Your task to perform on an android device: find snoozed emails in the gmail app Image 0: 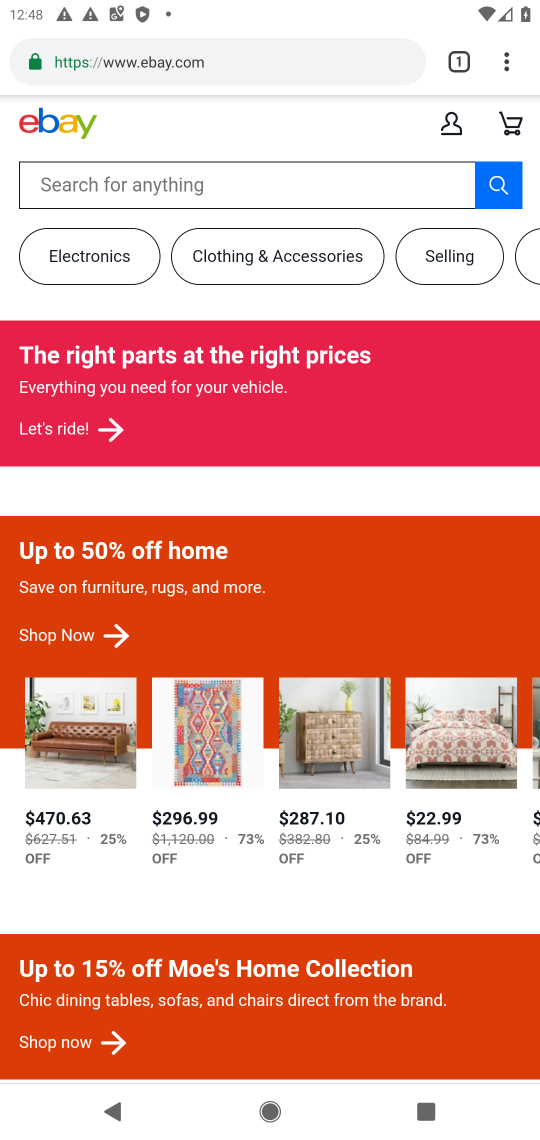
Step 0: press home button
Your task to perform on an android device: find snoozed emails in the gmail app Image 1: 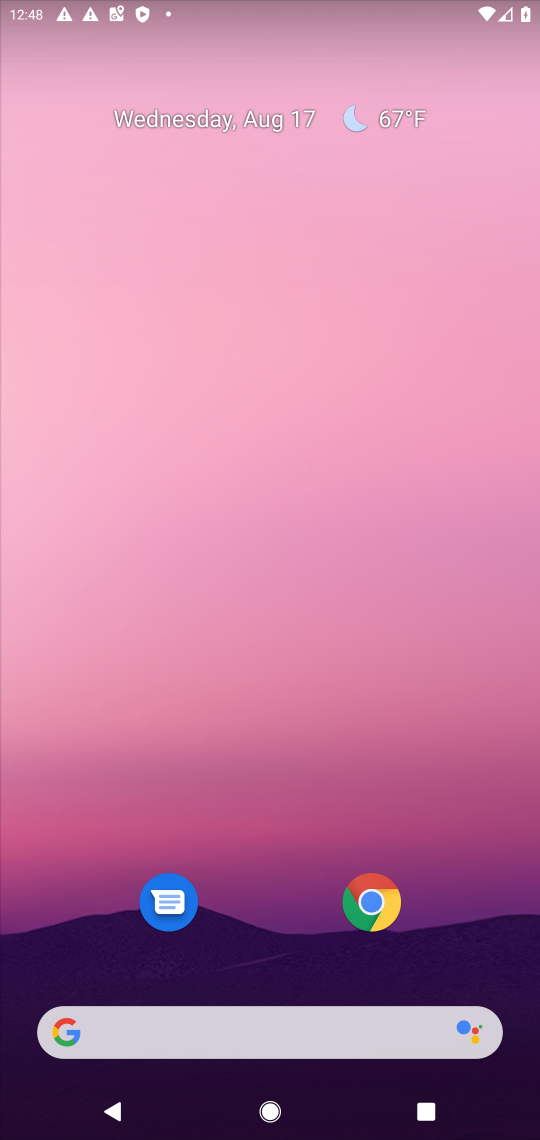
Step 1: drag from (278, 926) to (146, 3)
Your task to perform on an android device: find snoozed emails in the gmail app Image 2: 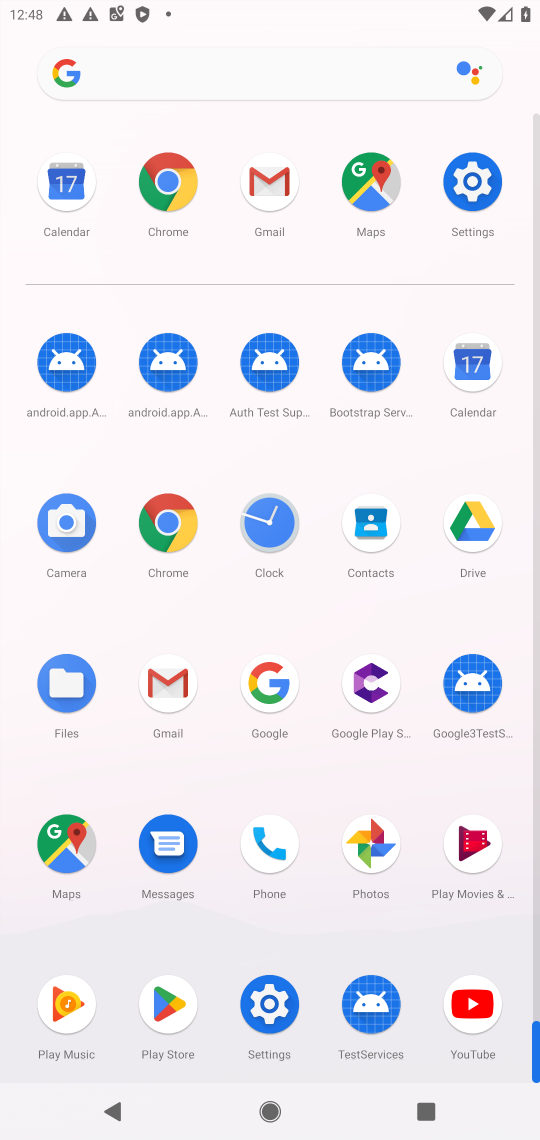
Step 2: click (168, 693)
Your task to perform on an android device: find snoozed emails in the gmail app Image 3: 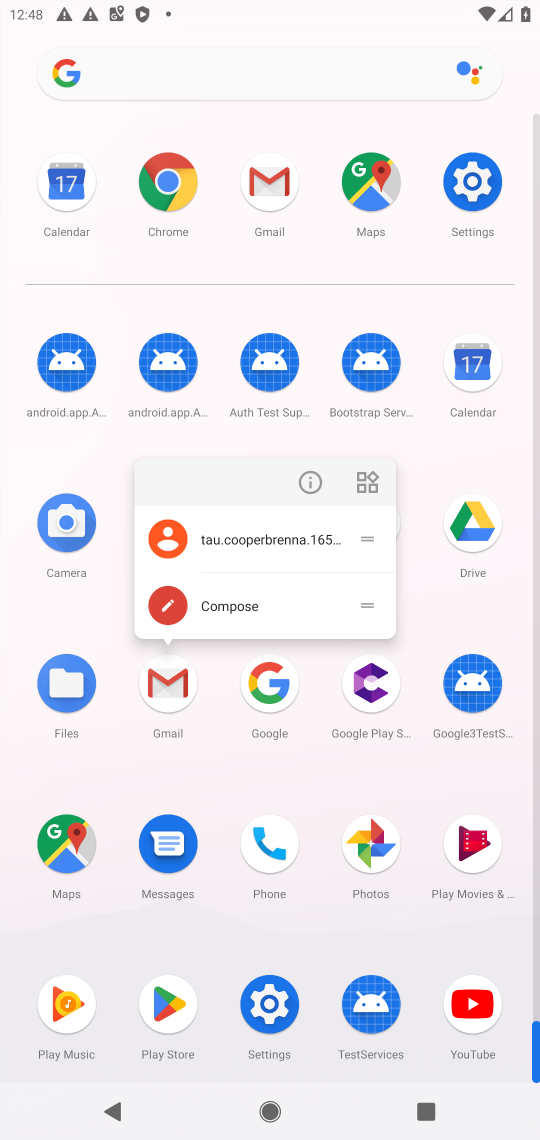
Step 3: click (157, 703)
Your task to perform on an android device: find snoozed emails in the gmail app Image 4: 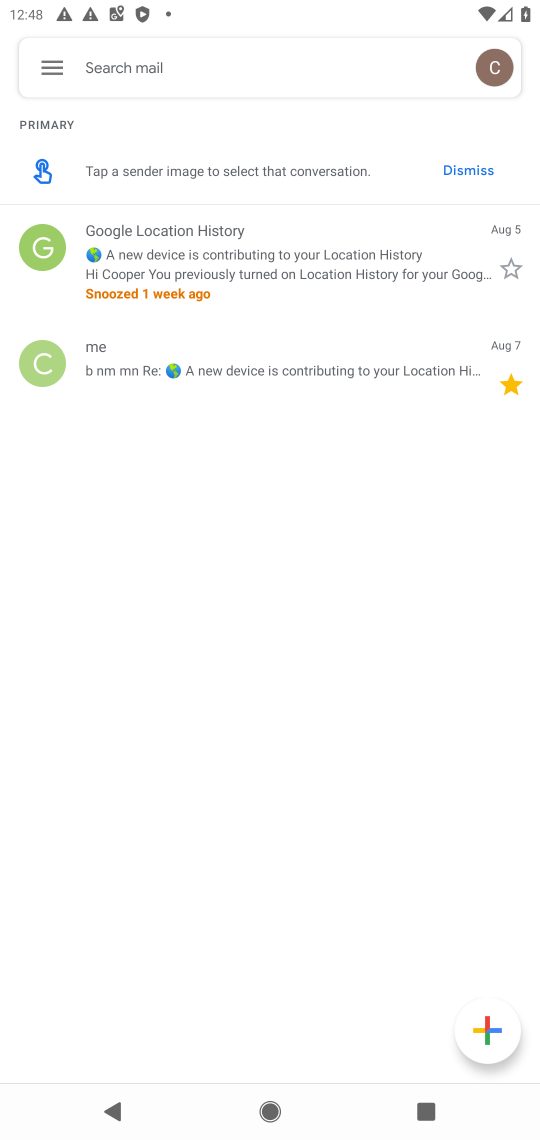
Step 4: click (54, 50)
Your task to perform on an android device: find snoozed emails in the gmail app Image 5: 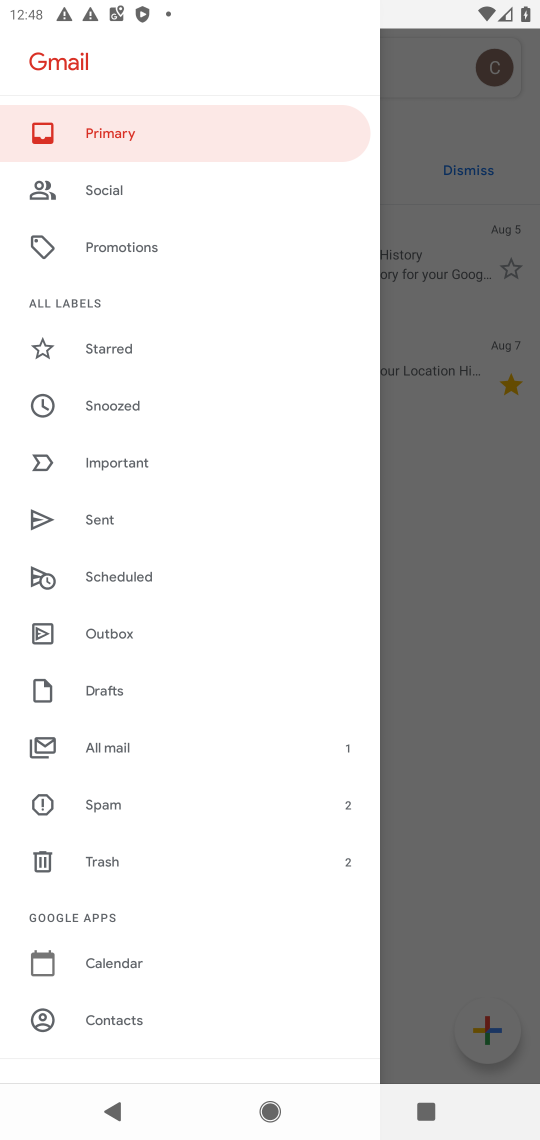
Step 5: click (117, 402)
Your task to perform on an android device: find snoozed emails in the gmail app Image 6: 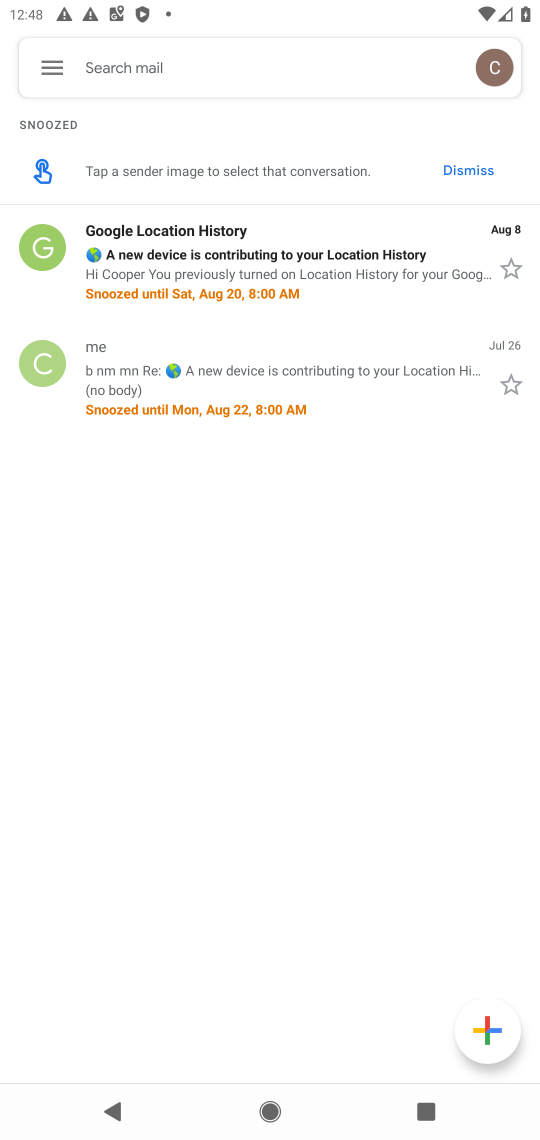
Step 6: task complete